Your task to perform on an android device: turn off smart reply in the gmail app Image 0: 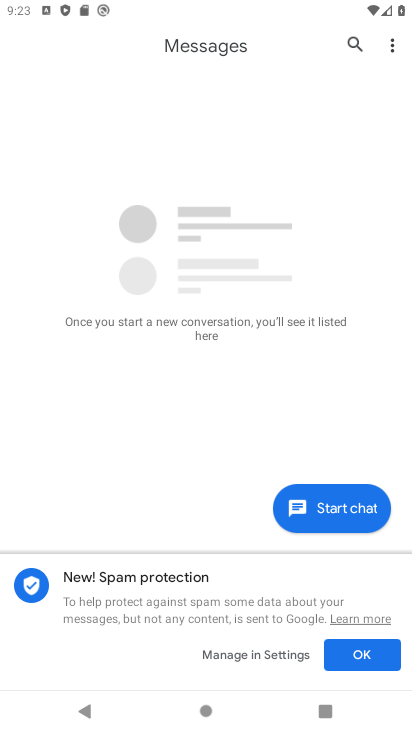
Step 0: press home button
Your task to perform on an android device: turn off smart reply in the gmail app Image 1: 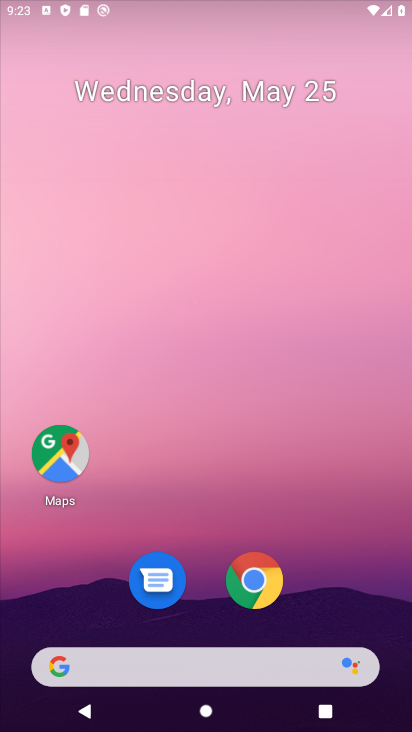
Step 1: drag from (27, 646) to (269, 140)
Your task to perform on an android device: turn off smart reply in the gmail app Image 2: 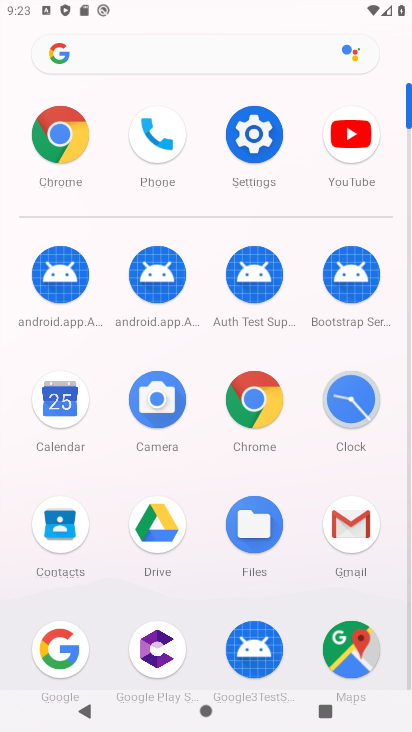
Step 2: click (360, 537)
Your task to perform on an android device: turn off smart reply in the gmail app Image 3: 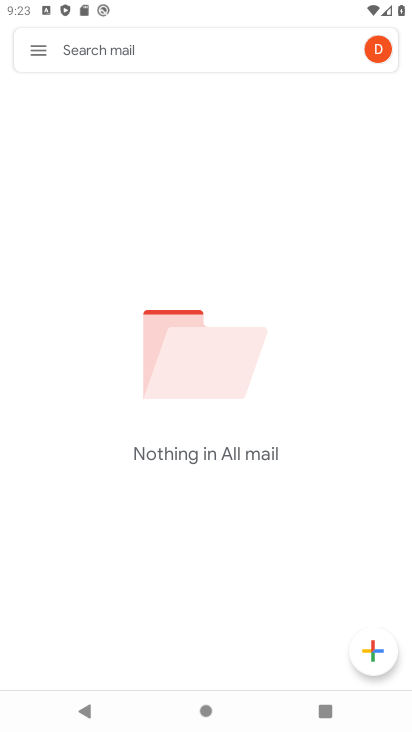
Step 3: click (38, 38)
Your task to perform on an android device: turn off smart reply in the gmail app Image 4: 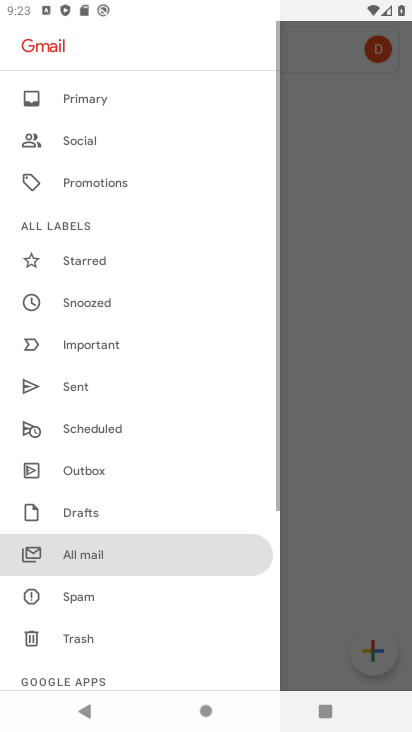
Step 4: drag from (62, 655) to (175, 107)
Your task to perform on an android device: turn off smart reply in the gmail app Image 5: 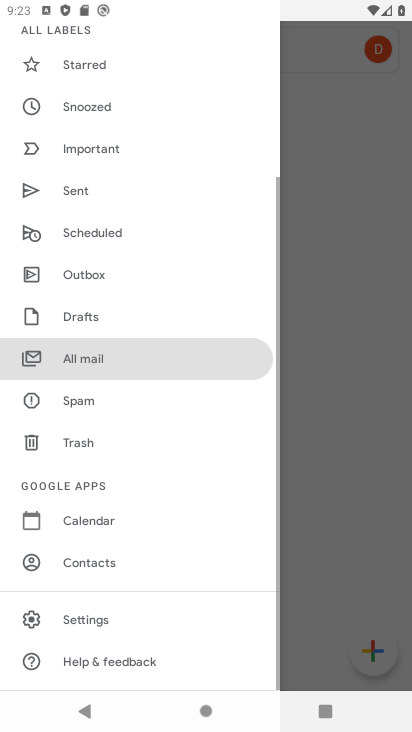
Step 5: click (66, 607)
Your task to perform on an android device: turn off smart reply in the gmail app Image 6: 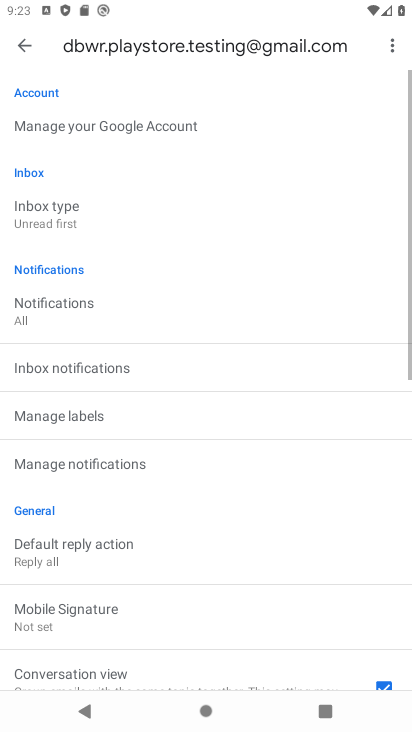
Step 6: drag from (61, 650) to (258, 80)
Your task to perform on an android device: turn off smart reply in the gmail app Image 7: 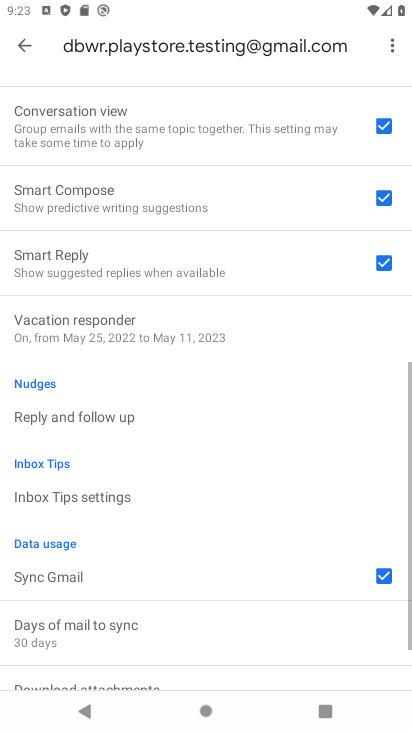
Step 7: drag from (97, 643) to (235, 232)
Your task to perform on an android device: turn off smart reply in the gmail app Image 8: 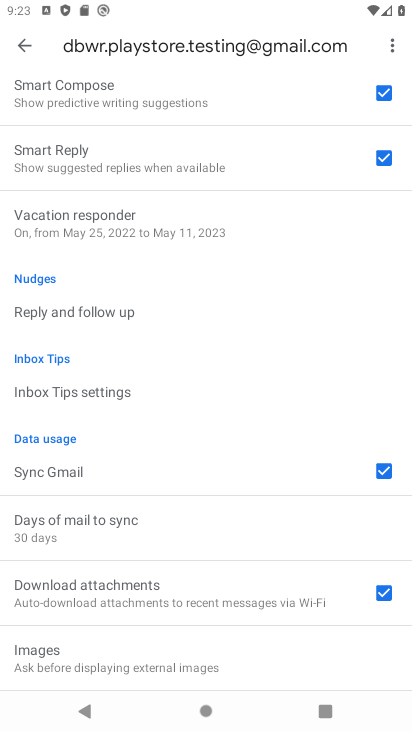
Step 8: click (388, 149)
Your task to perform on an android device: turn off smart reply in the gmail app Image 9: 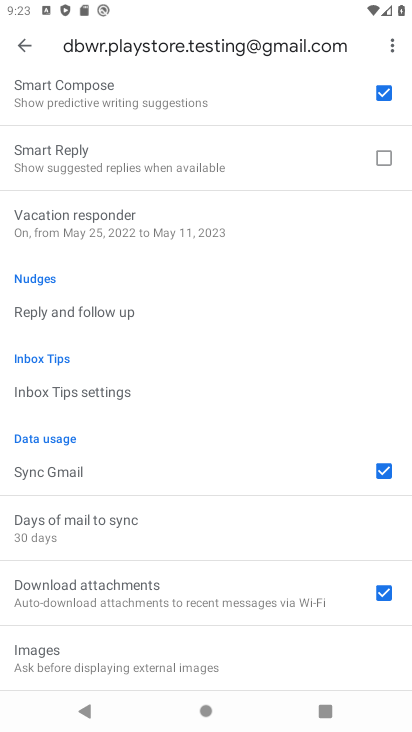
Step 9: task complete